Your task to perform on an android device: turn off notifications in google photos Image 0: 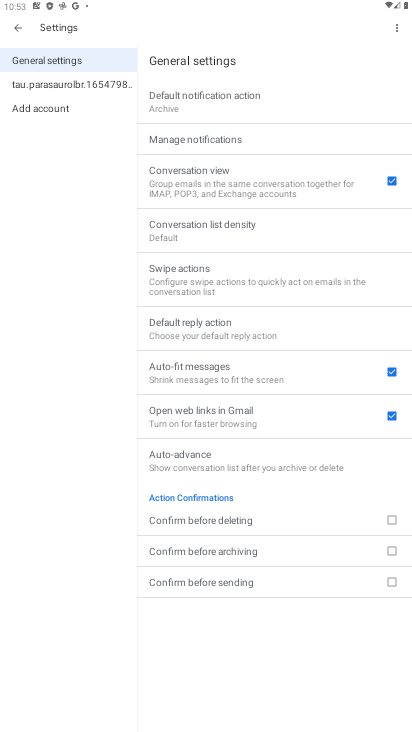
Step 0: press home button
Your task to perform on an android device: turn off notifications in google photos Image 1: 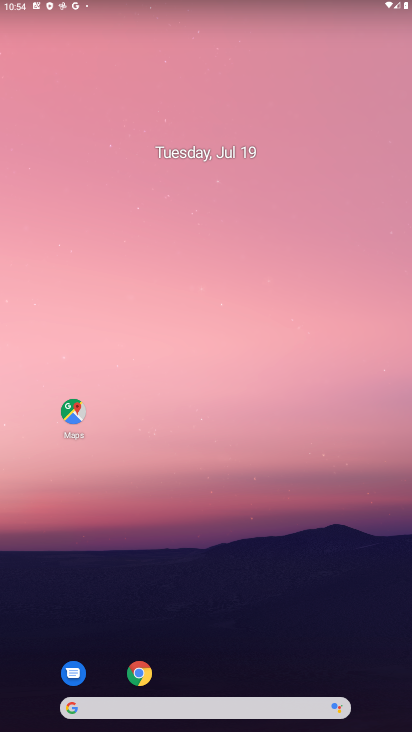
Step 1: drag from (297, 652) to (235, 0)
Your task to perform on an android device: turn off notifications in google photos Image 2: 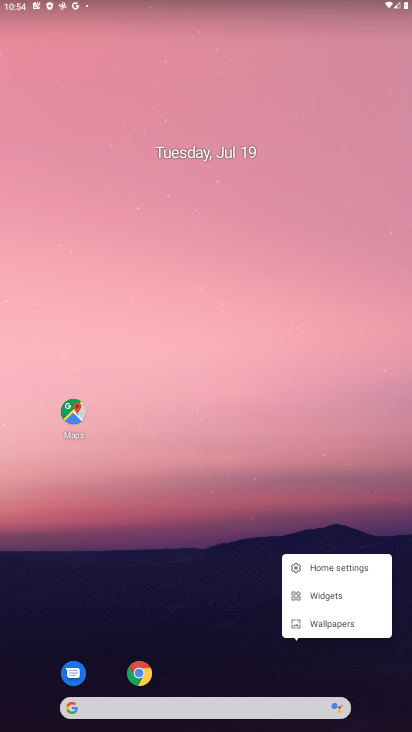
Step 2: click (203, 352)
Your task to perform on an android device: turn off notifications in google photos Image 3: 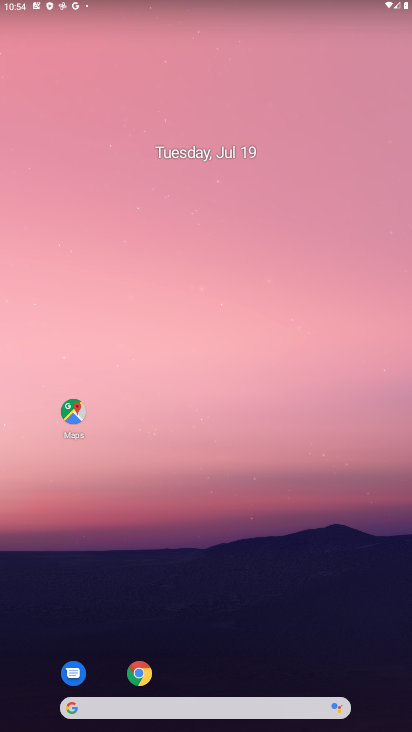
Step 3: drag from (252, 635) to (274, 0)
Your task to perform on an android device: turn off notifications in google photos Image 4: 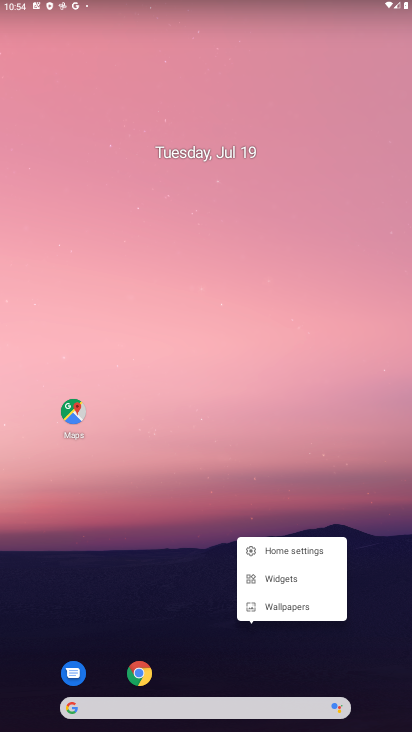
Step 4: click (204, 477)
Your task to perform on an android device: turn off notifications in google photos Image 5: 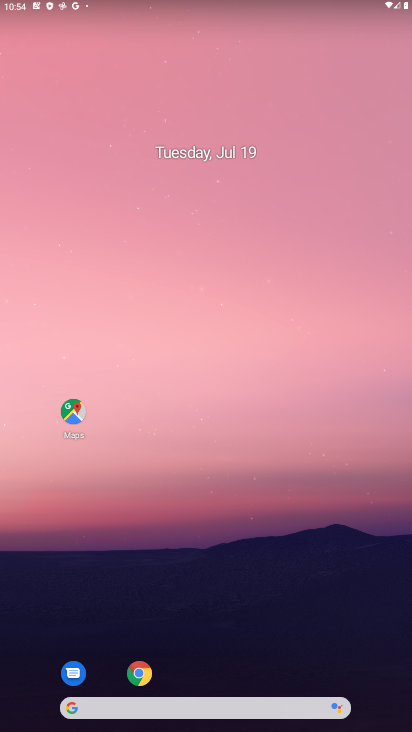
Step 5: drag from (256, 687) to (253, 106)
Your task to perform on an android device: turn off notifications in google photos Image 6: 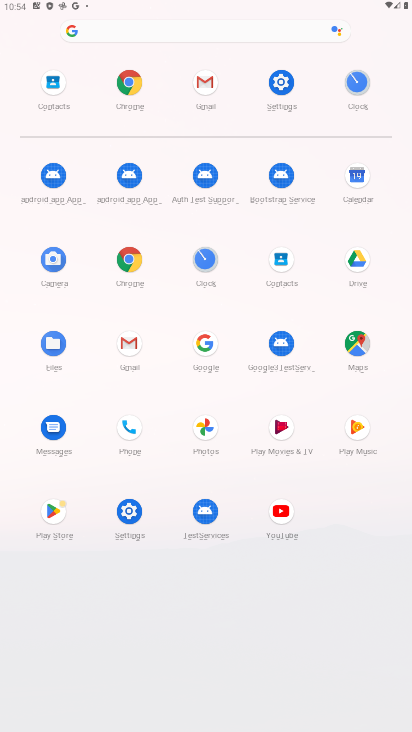
Step 6: click (204, 425)
Your task to perform on an android device: turn off notifications in google photos Image 7: 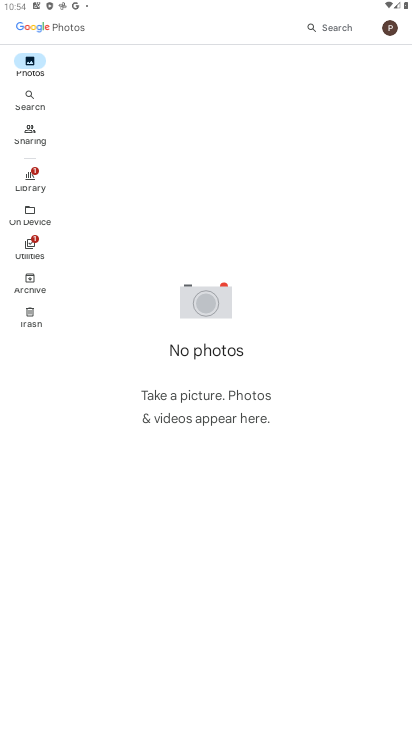
Step 7: task complete